Your task to perform on an android device: install app "Google Duo" Image 0: 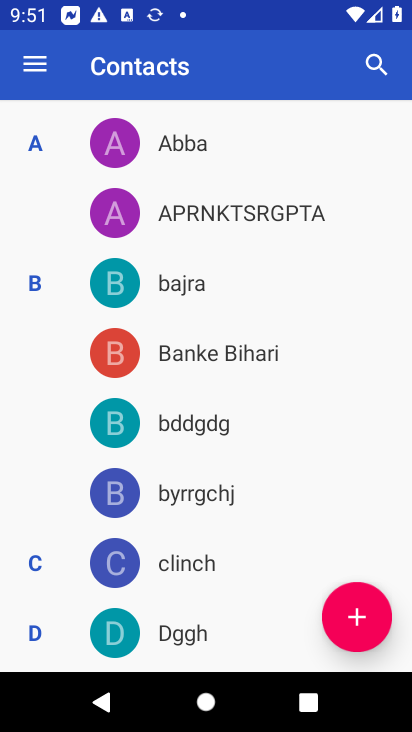
Step 0: press home button
Your task to perform on an android device: install app "Google Duo" Image 1: 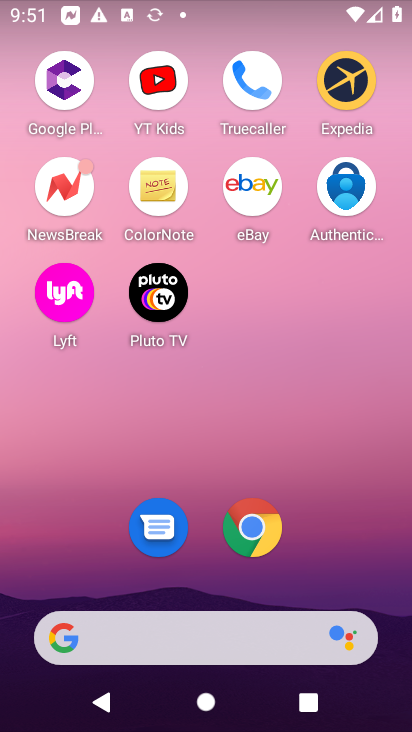
Step 1: drag from (236, 568) to (251, 234)
Your task to perform on an android device: install app "Google Duo" Image 2: 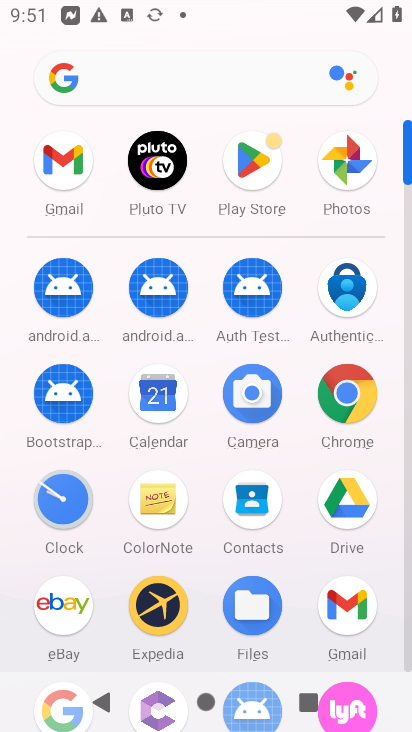
Step 2: click (256, 178)
Your task to perform on an android device: install app "Google Duo" Image 3: 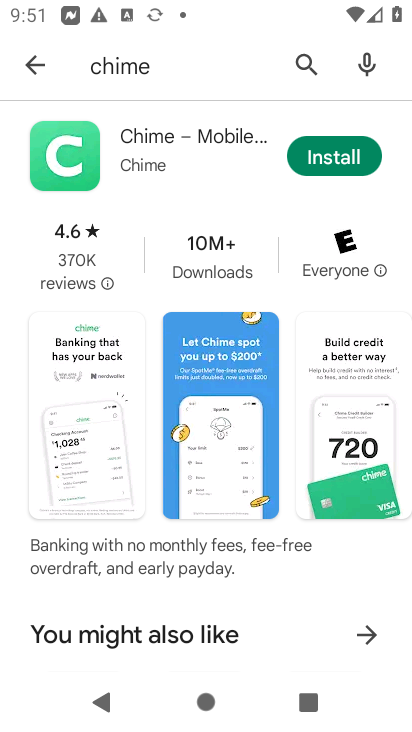
Step 3: click (164, 56)
Your task to perform on an android device: install app "Google Duo" Image 4: 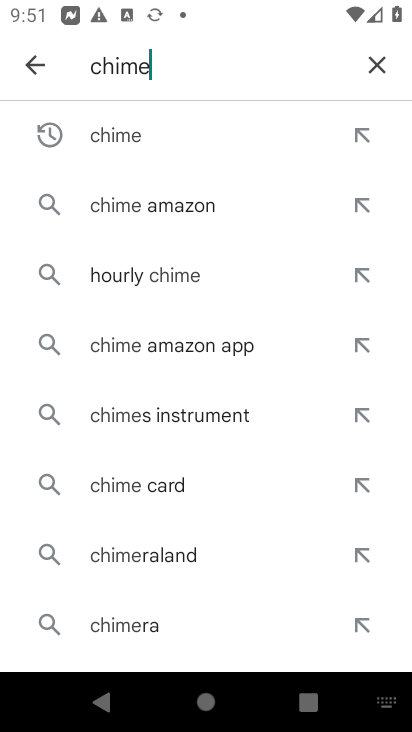
Step 4: click (375, 66)
Your task to perform on an android device: install app "Google Duo" Image 5: 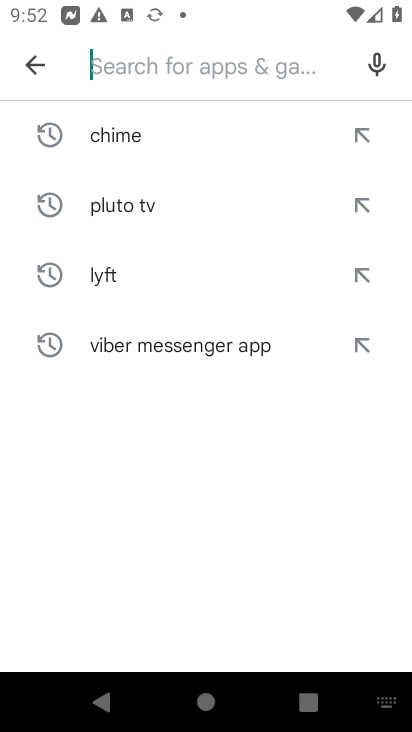
Step 5: type "Google Duo"
Your task to perform on an android device: install app "Google Duo" Image 6: 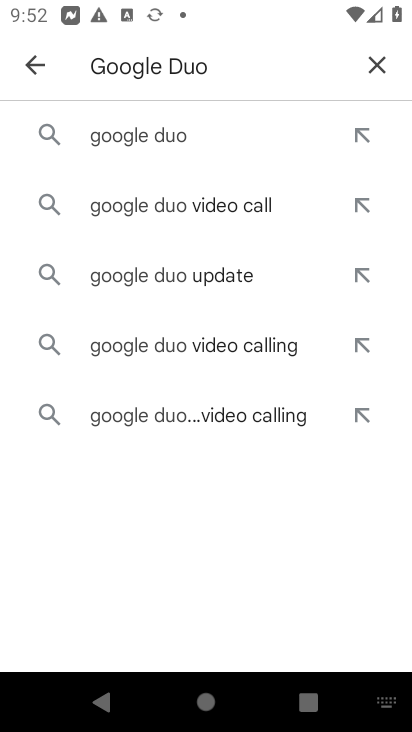
Step 6: click (152, 145)
Your task to perform on an android device: install app "Google Duo" Image 7: 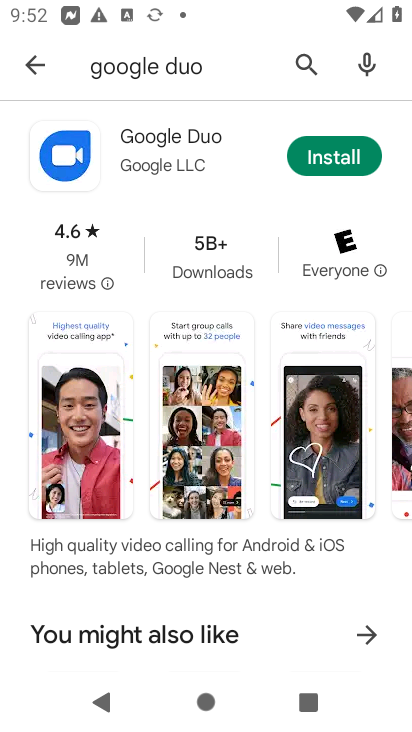
Step 7: click (349, 153)
Your task to perform on an android device: install app "Google Duo" Image 8: 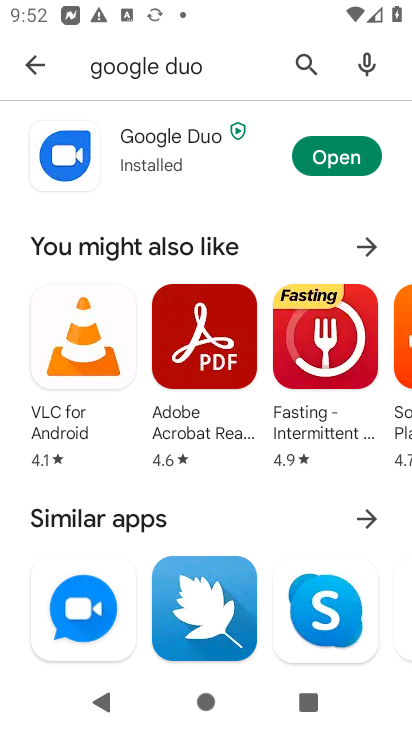
Step 8: task complete